Your task to perform on an android device: star an email in the gmail app Image 0: 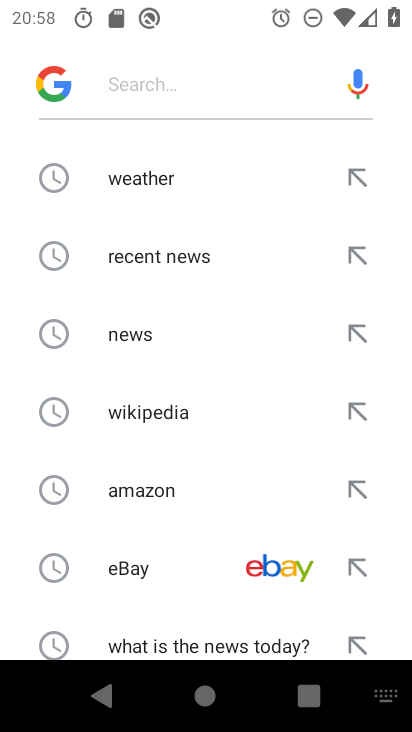
Step 0: press back button
Your task to perform on an android device: star an email in the gmail app Image 1: 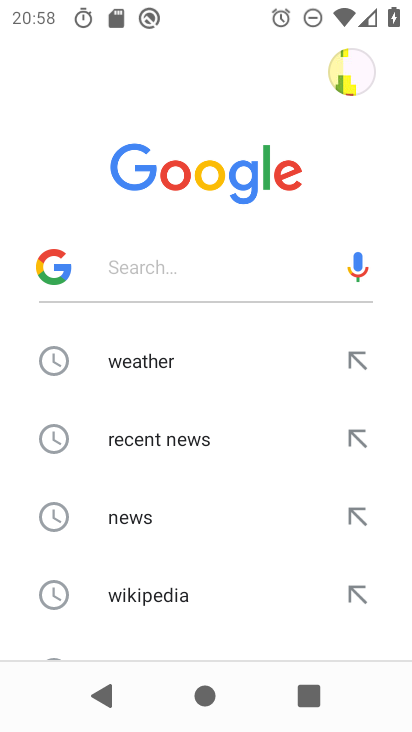
Step 1: press back button
Your task to perform on an android device: star an email in the gmail app Image 2: 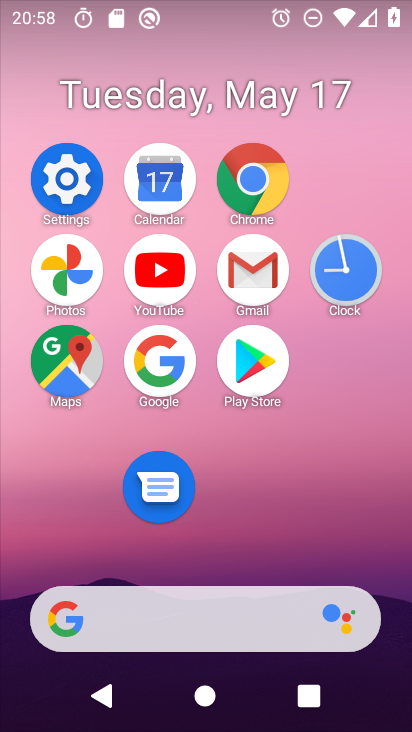
Step 2: click (235, 276)
Your task to perform on an android device: star an email in the gmail app Image 3: 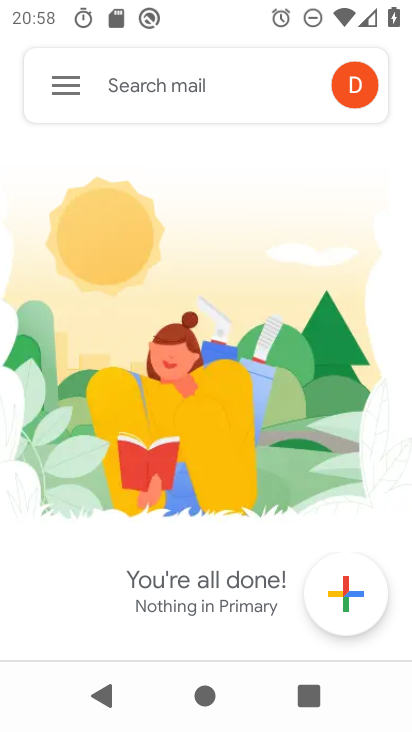
Step 3: click (45, 91)
Your task to perform on an android device: star an email in the gmail app Image 4: 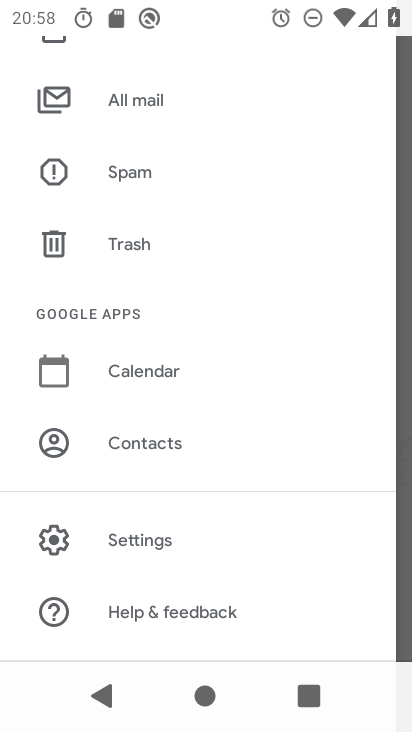
Step 4: click (203, 120)
Your task to perform on an android device: star an email in the gmail app Image 5: 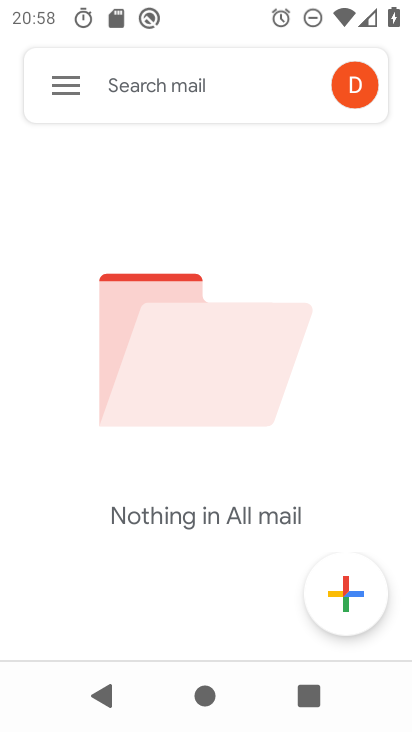
Step 5: task complete